Your task to perform on an android device: change keyboard looks Image 0: 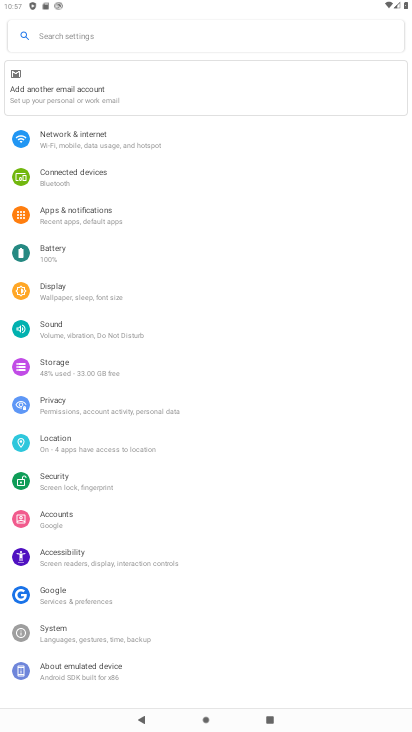
Step 0: click (79, 638)
Your task to perform on an android device: change keyboard looks Image 1: 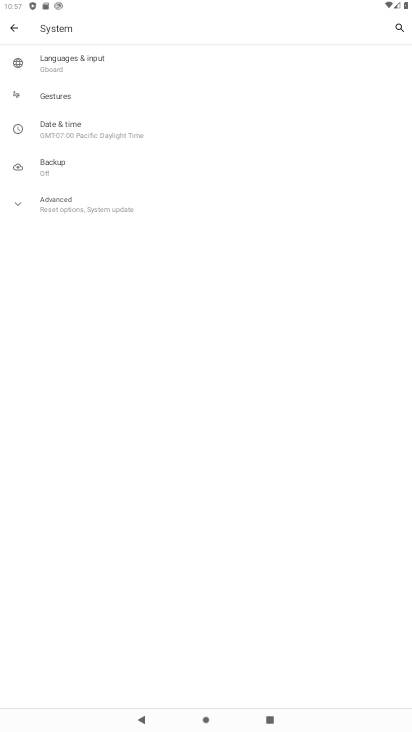
Step 1: click (70, 56)
Your task to perform on an android device: change keyboard looks Image 2: 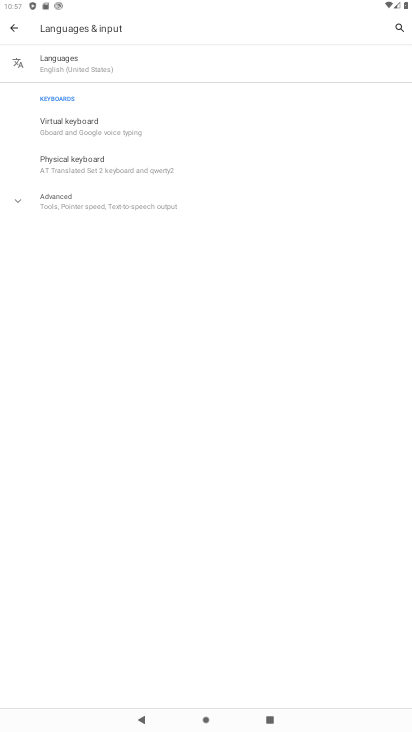
Step 2: click (79, 126)
Your task to perform on an android device: change keyboard looks Image 3: 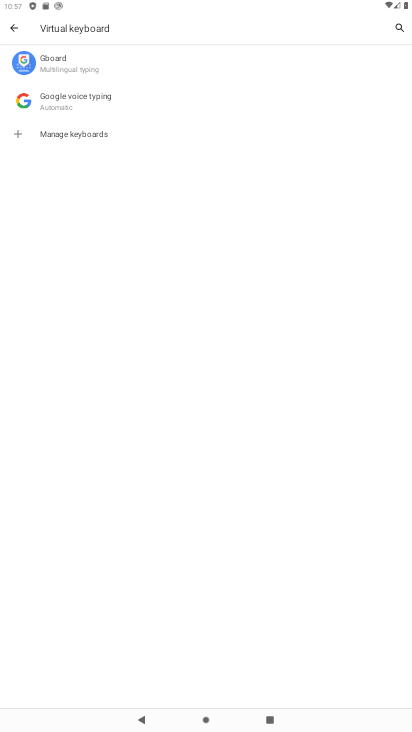
Step 3: click (78, 67)
Your task to perform on an android device: change keyboard looks Image 4: 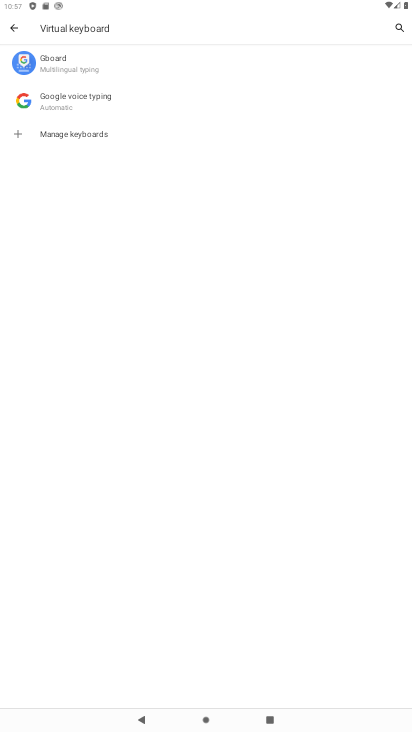
Step 4: click (69, 67)
Your task to perform on an android device: change keyboard looks Image 5: 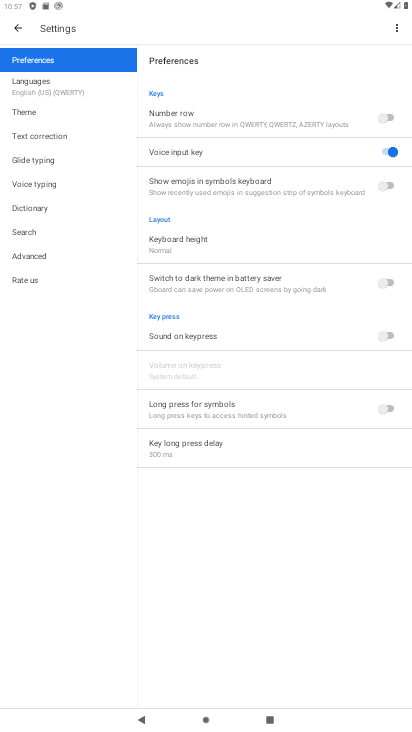
Step 5: click (37, 119)
Your task to perform on an android device: change keyboard looks Image 6: 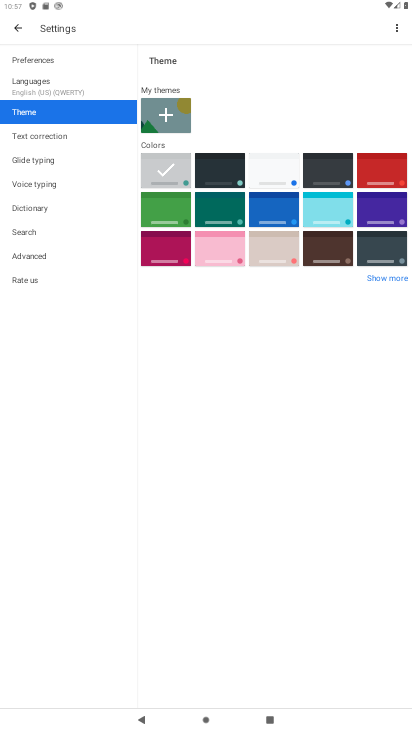
Step 6: click (179, 210)
Your task to perform on an android device: change keyboard looks Image 7: 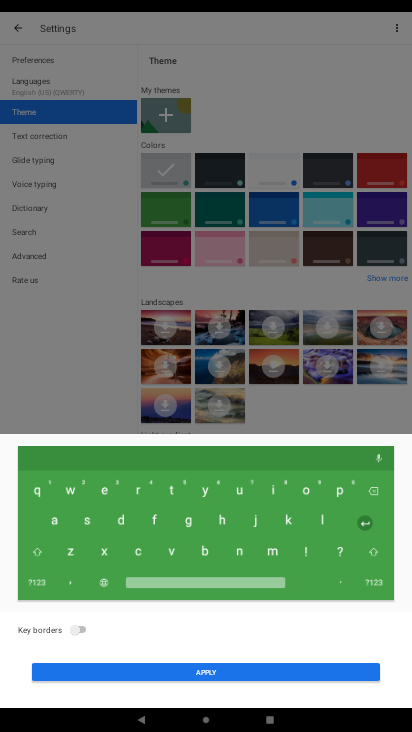
Step 7: click (202, 675)
Your task to perform on an android device: change keyboard looks Image 8: 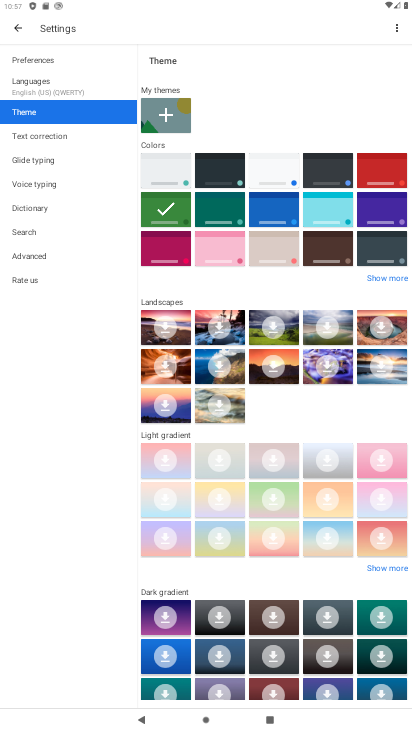
Step 8: task complete